Your task to perform on an android device: toggle pop-ups in chrome Image 0: 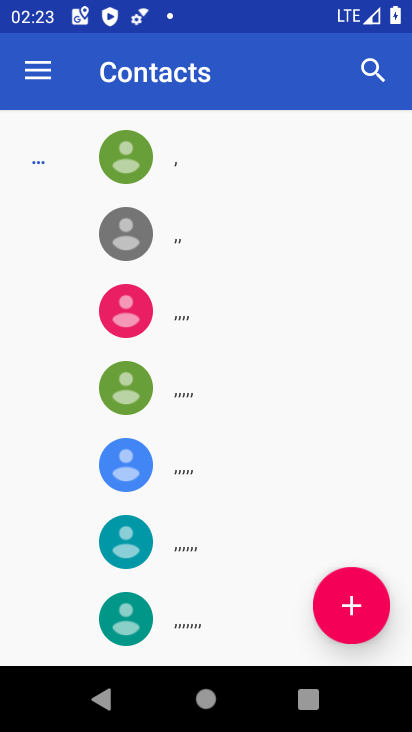
Step 0: press home button
Your task to perform on an android device: toggle pop-ups in chrome Image 1: 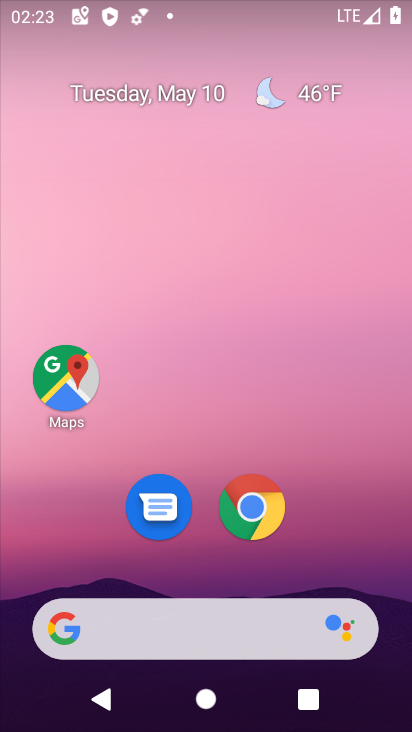
Step 1: drag from (304, 621) to (390, 110)
Your task to perform on an android device: toggle pop-ups in chrome Image 2: 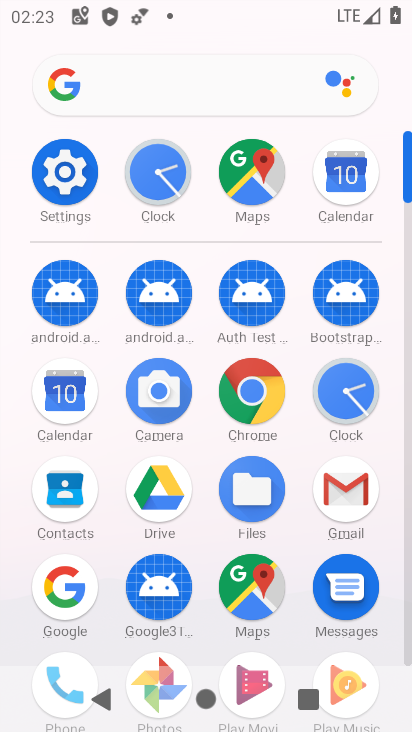
Step 2: click (244, 399)
Your task to perform on an android device: toggle pop-ups in chrome Image 3: 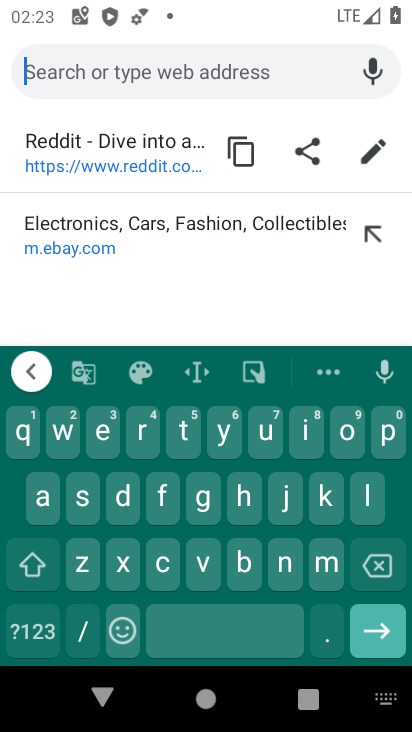
Step 3: press back button
Your task to perform on an android device: toggle pop-ups in chrome Image 4: 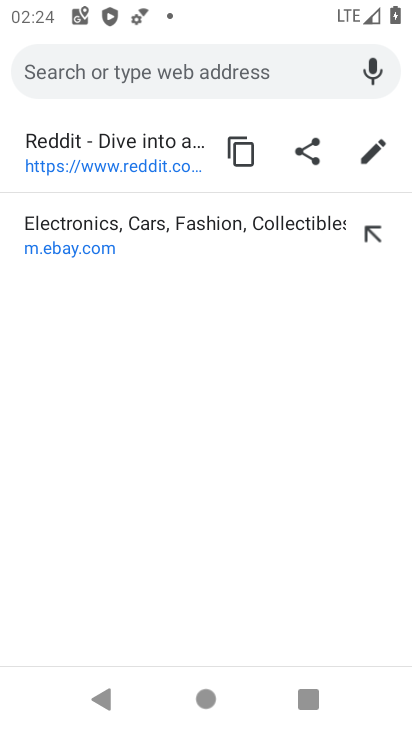
Step 4: press back button
Your task to perform on an android device: toggle pop-ups in chrome Image 5: 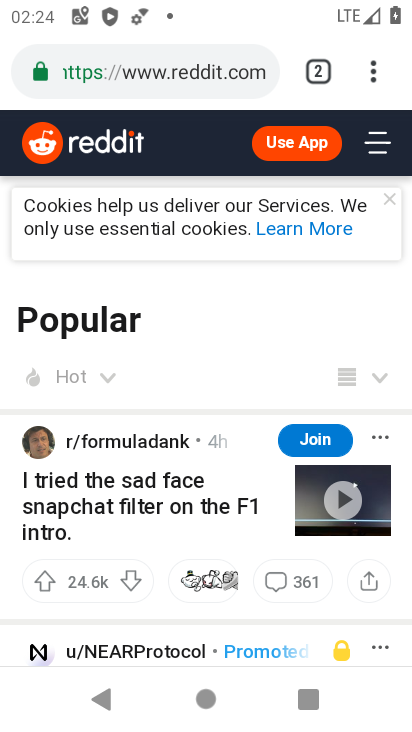
Step 5: click (380, 90)
Your task to perform on an android device: toggle pop-ups in chrome Image 6: 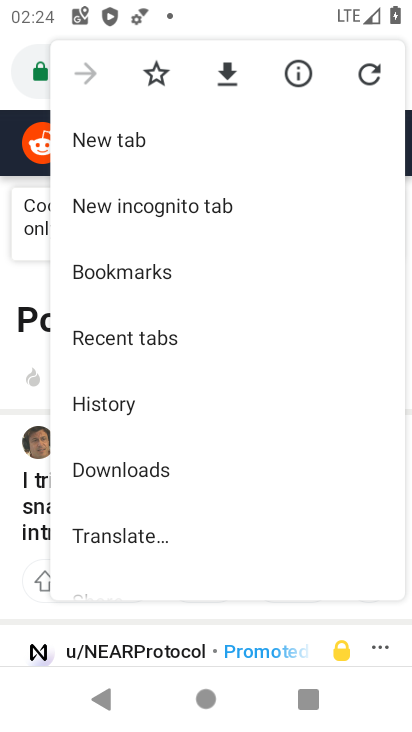
Step 6: drag from (163, 523) to (212, 276)
Your task to perform on an android device: toggle pop-ups in chrome Image 7: 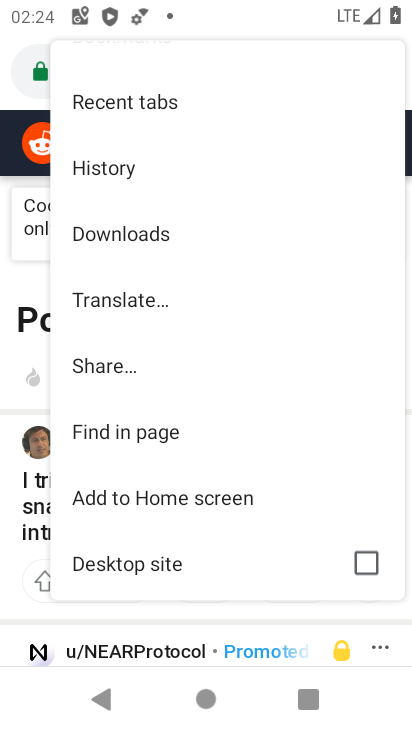
Step 7: drag from (171, 532) to (212, 373)
Your task to perform on an android device: toggle pop-ups in chrome Image 8: 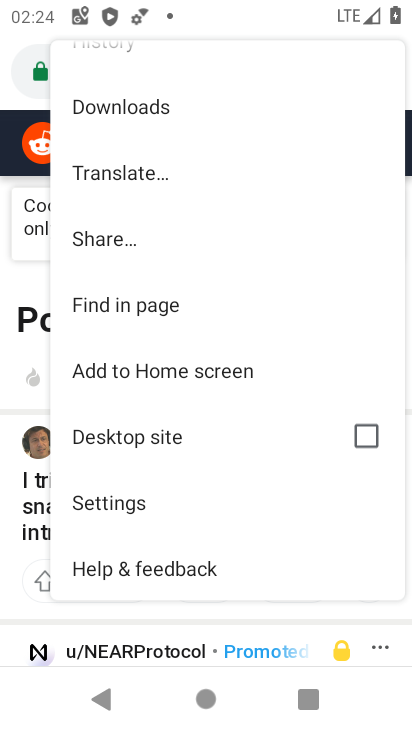
Step 8: click (145, 498)
Your task to perform on an android device: toggle pop-ups in chrome Image 9: 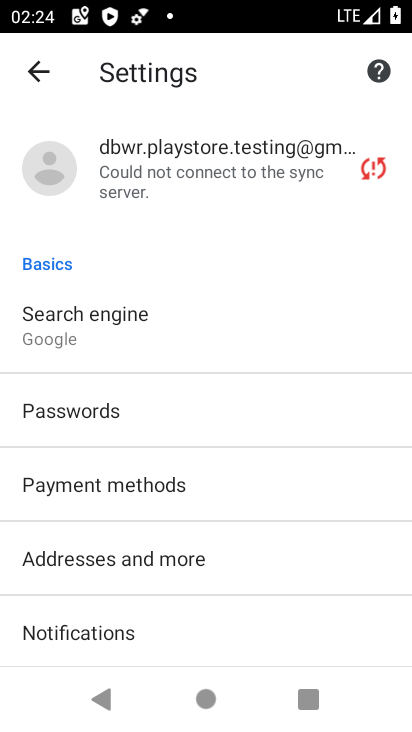
Step 9: drag from (123, 575) to (229, 348)
Your task to perform on an android device: toggle pop-ups in chrome Image 10: 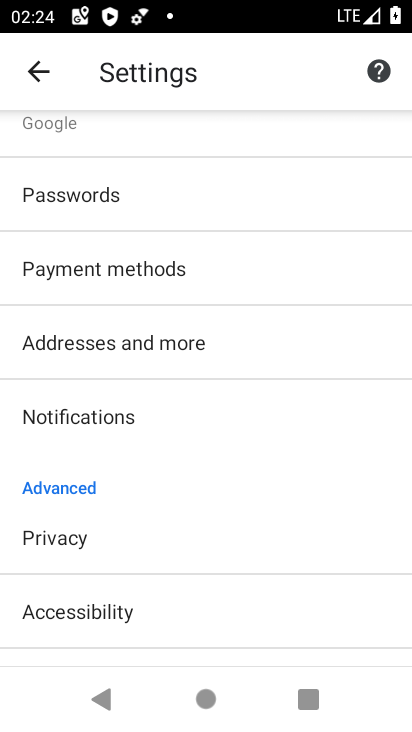
Step 10: drag from (132, 515) to (176, 383)
Your task to perform on an android device: toggle pop-ups in chrome Image 11: 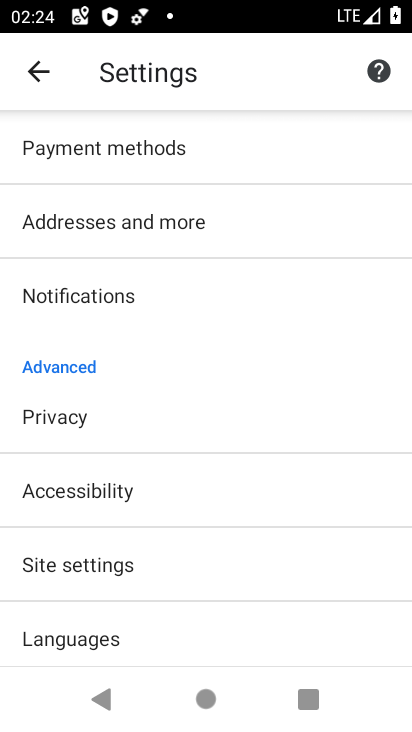
Step 11: click (120, 560)
Your task to perform on an android device: toggle pop-ups in chrome Image 12: 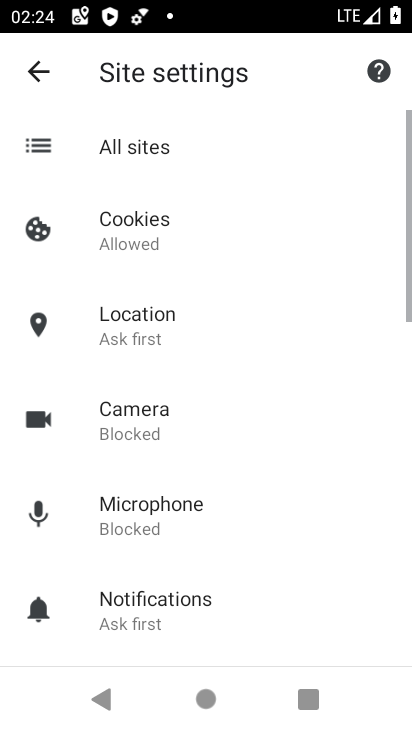
Step 12: drag from (157, 596) to (293, 263)
Your task to perform on an android device: toggle pop-ups in chrome Image 13: 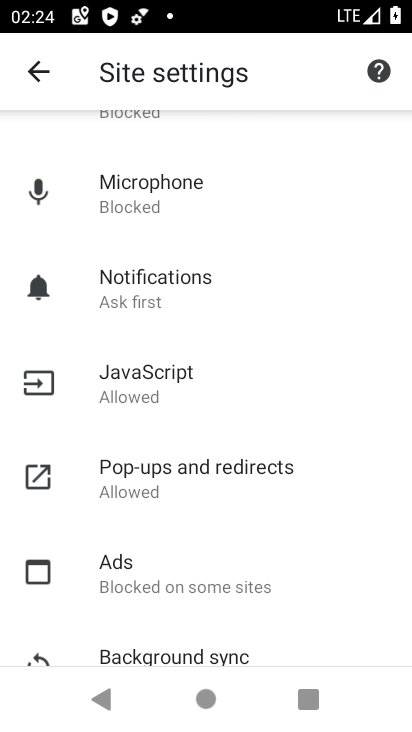
Step 13: click (197, 482)
Your task to perform on an android device: toggle pop-ups in chrome Image 14: 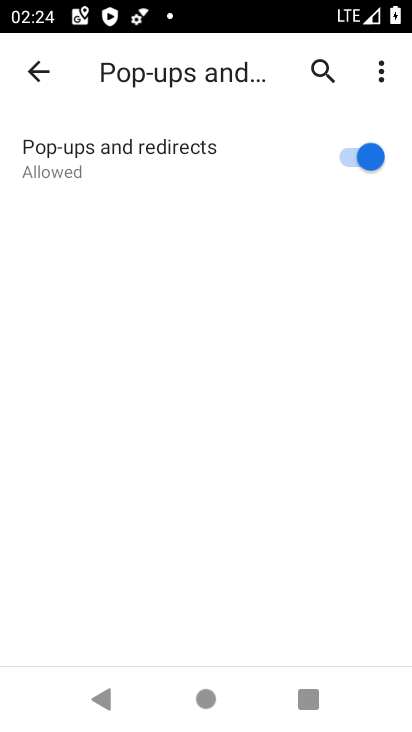
Step 14: task complete